Your task to perform on an android device: Open Google Maps and go to "Timeline" Image 0: 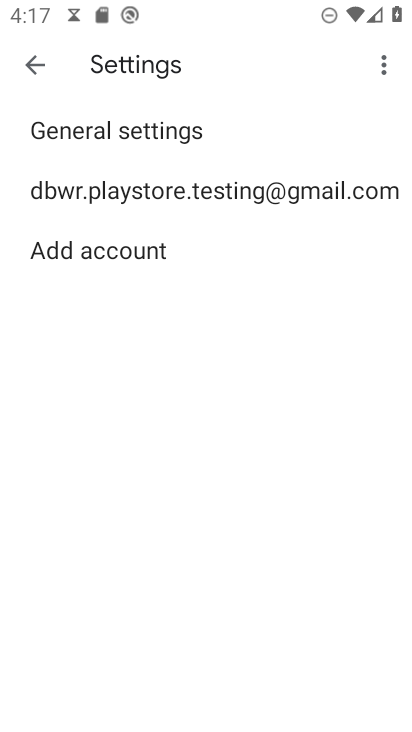
Step 0: press back button
Your task to perform on an android device: Open Google Maps and go to "Timeline" Image 1: 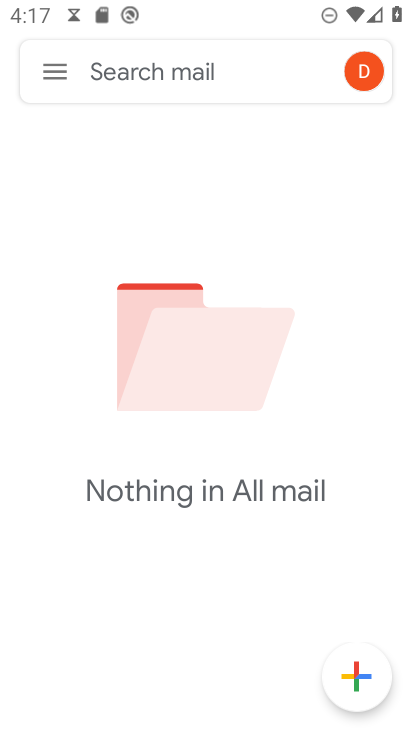
Step 1: press back button
Your task to perform on an android device: Open Google Maps and go to "Timeline" Image 2: 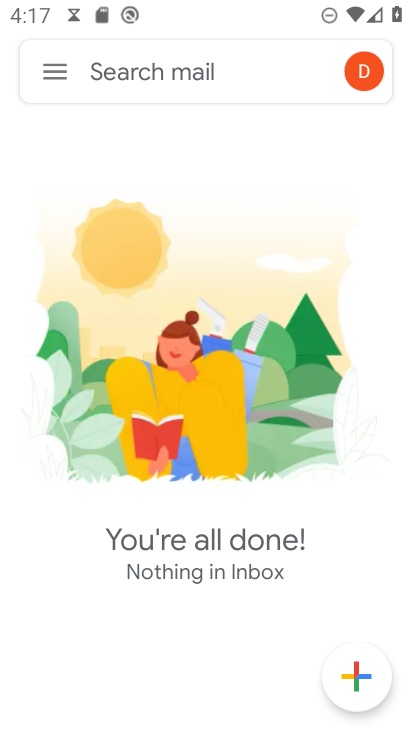
Step 2: press home button
Your task to perform on an android device: Open Google Maps and go to "Timeline" Image 3: 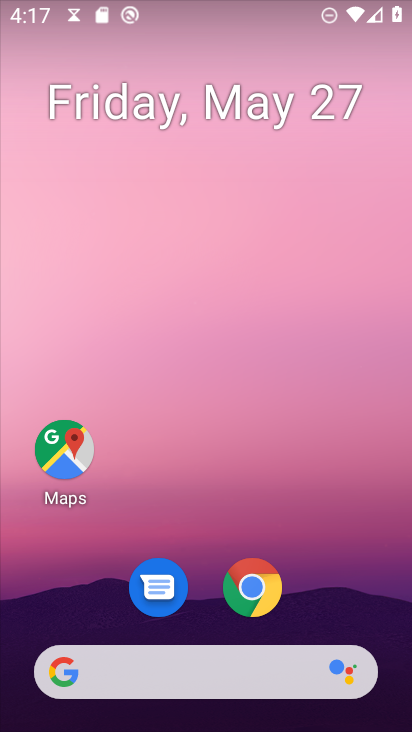
Step 3: drag from (325, 575) to (289, 37)
Your task to perform on an android device: Open Google Maps and go to "Timeline" Image 4: 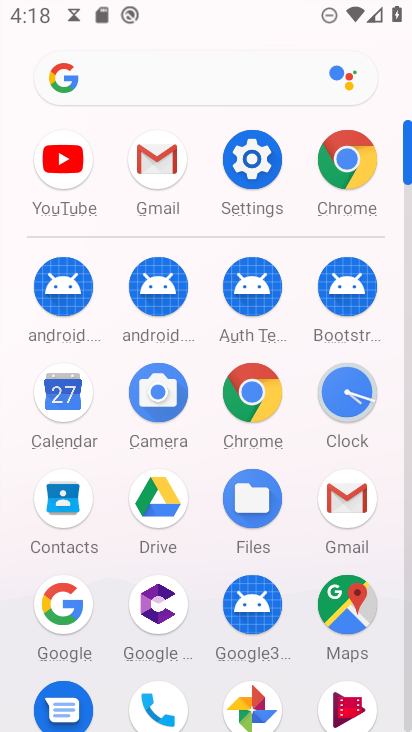
Step 4: click (349, 601)
Your task to perform on an android device: Open Google Maps and go to "Timeline" Image 5: 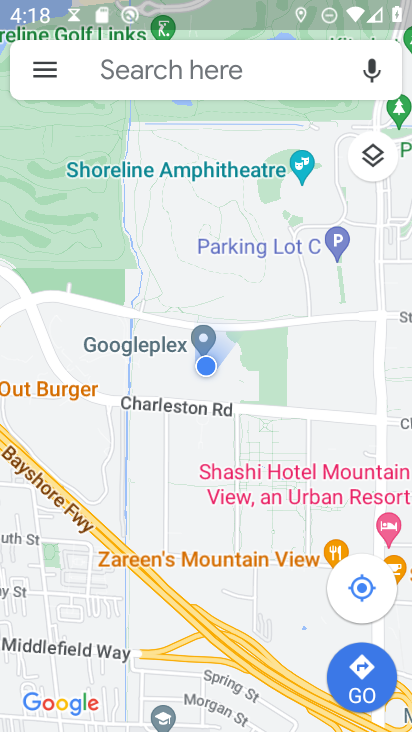
Step 5: click (28, 65)
Your task to perform on an android device: Open Google Maps and go to "Timeline" Image 6: 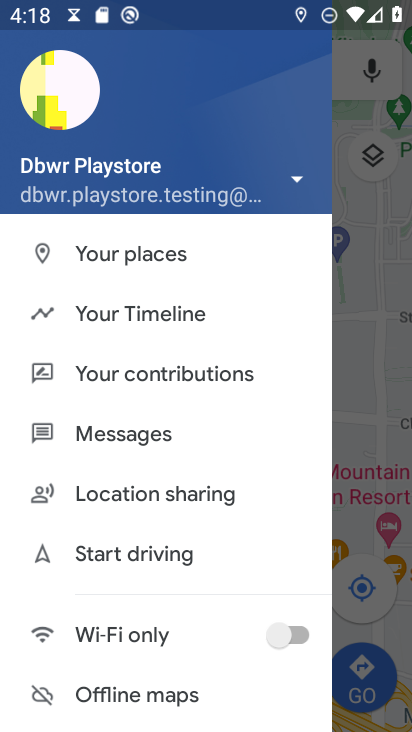
Step 6: click (194, 316)
Your task to perform on an android device: Open Google Maps and go to "Timeline" Image 7: 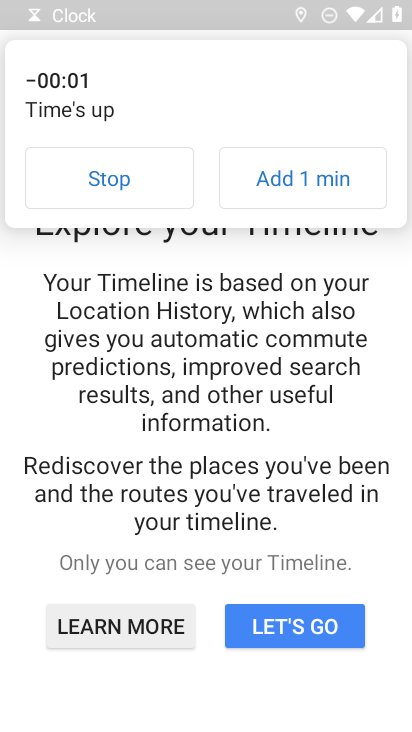
Step 7: click (122, 186)
Your task to perform on an android device: Open Google Maps and go to "Timeline" Image 8: 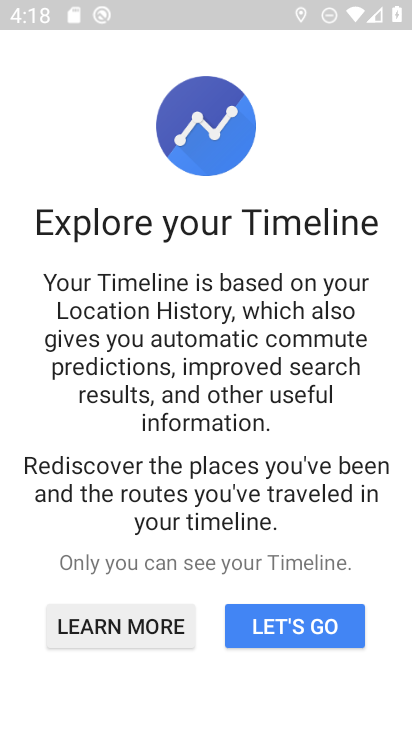
Step 8: click (293, 629)
Your task to perform on an android device: Open Google Maps and go to "Timeline" Image 9: 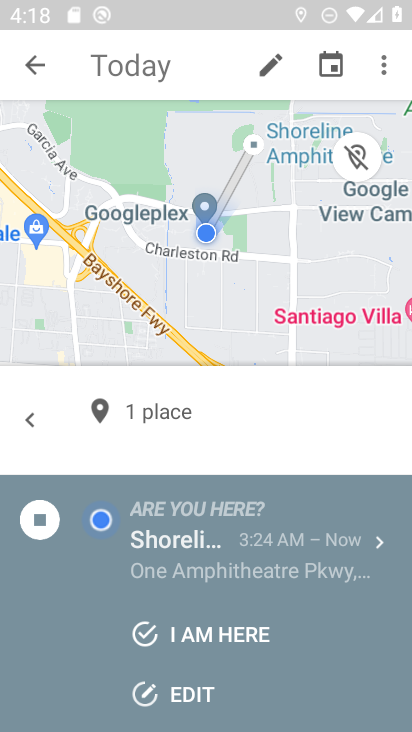
Step 9: task complete